Your task to perform on an android device: Go to accessibility settings Image 0: 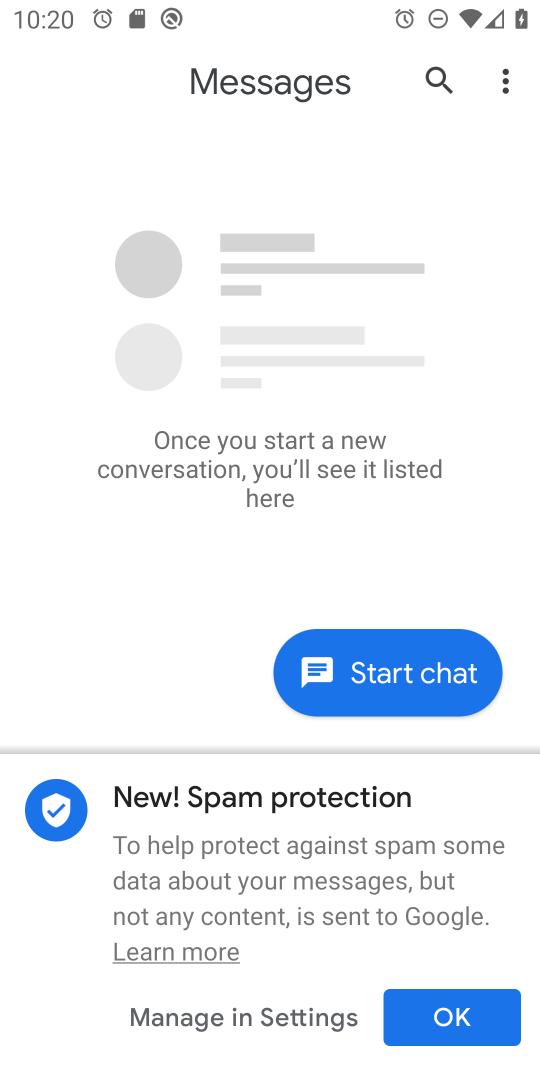
Step 0: press home button
Your task to perform on an android device: Go to accessibility settings Image 1: 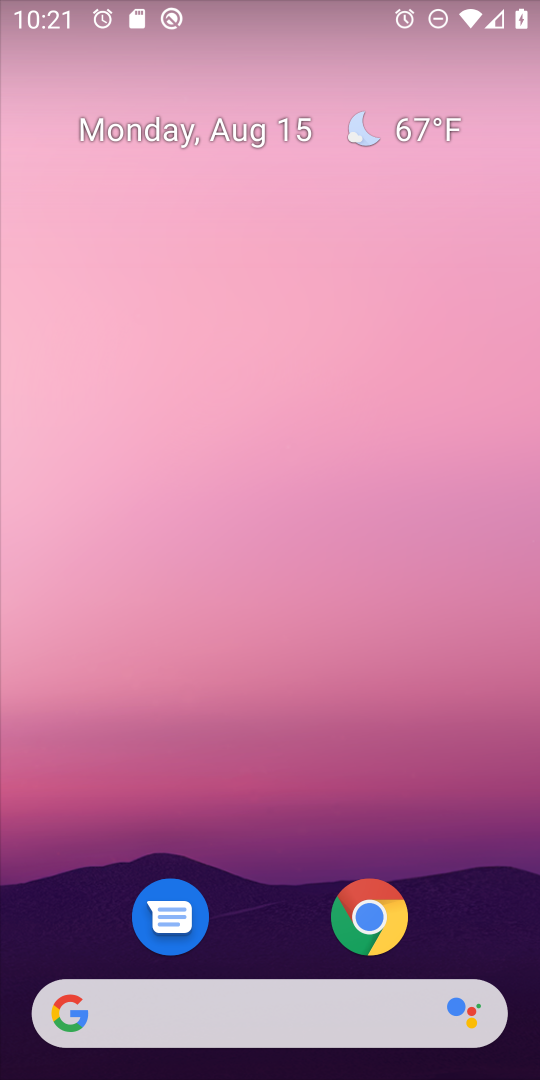
Step 1: drag from (289, 833) to (287, 61)
Your task to perform on an android device: Go to accessibility settings Image 2: 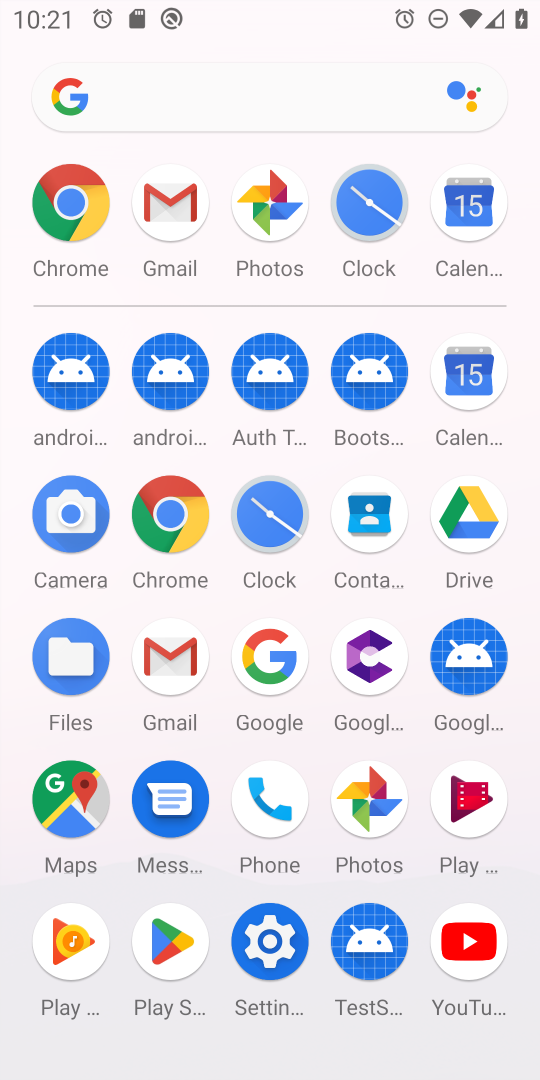
Step 2: click (268, 925)
Your task to perform on an android device: Go to accessibility settings Image 3: 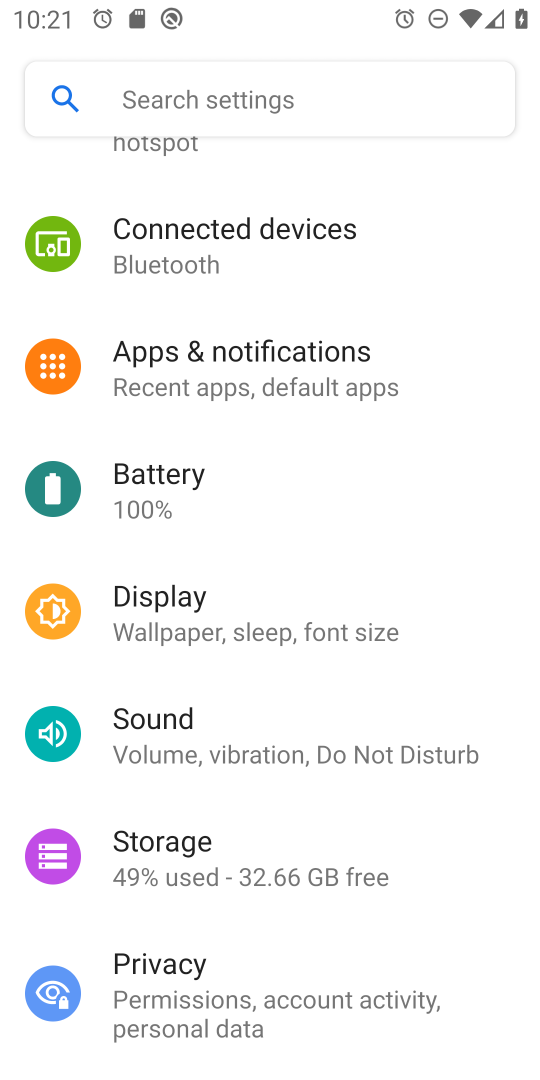
Step 3: drag from (273, 919) to (226, 89)
Your task to perform on an android device: Go to accessibility settings Image 4: 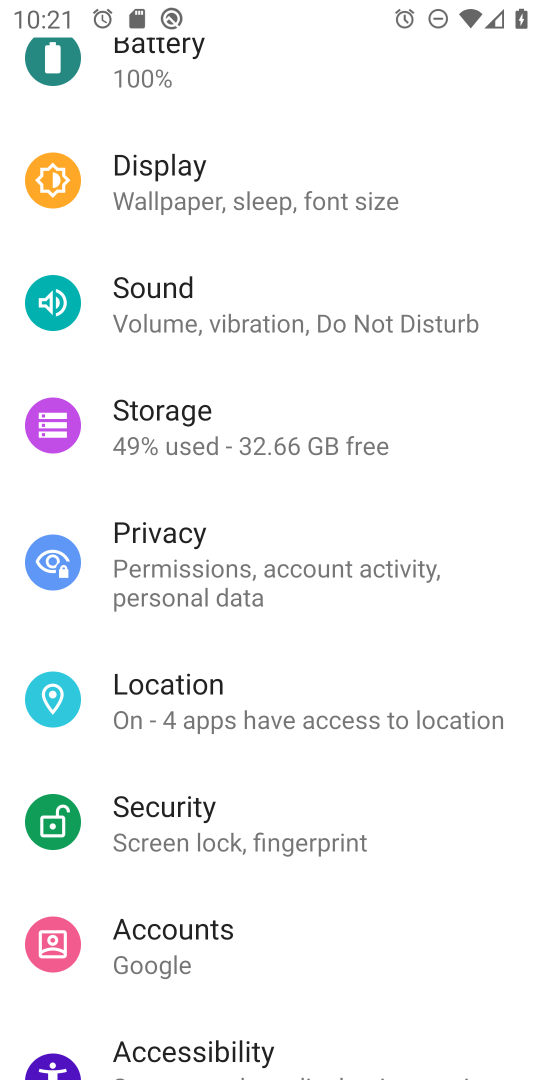
Step 4: click (261, 1045)
Your task to perform on an android device: Go to accessibility settings Image 5: 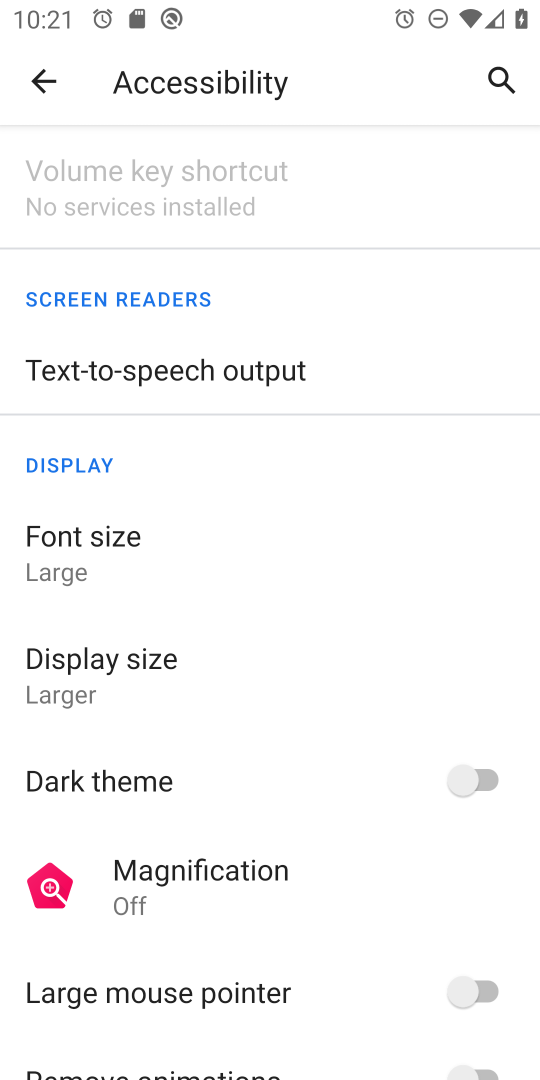
Step 5: task complete